Your task to perform on an android device: set the timer Image 0: 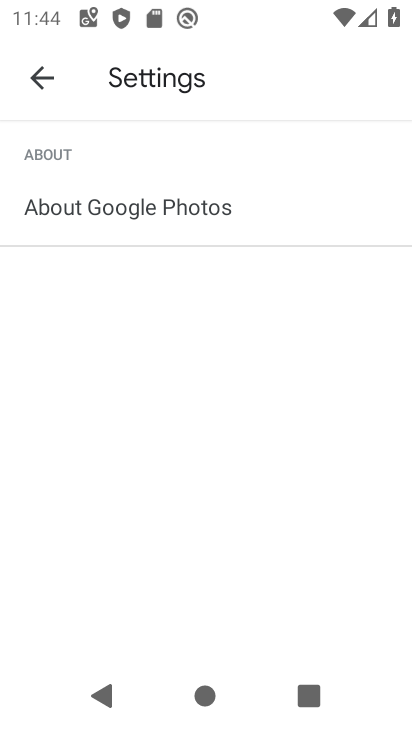
Step 0: press home button
Your task to perform on an android device: set the timer Image 1: 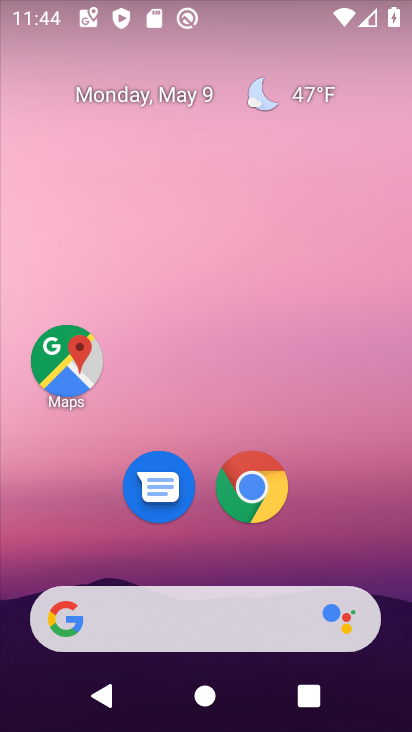
Step 1: drag from (208, 557) to (219, 85)
Your task to perform on an android device: set the timer Image 2: 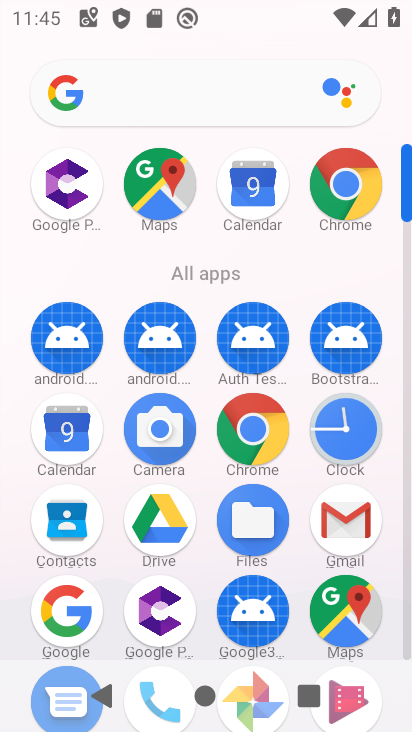
Step 2: click (344, 424)
Your task to perform on an android device: set the timer Image 3: 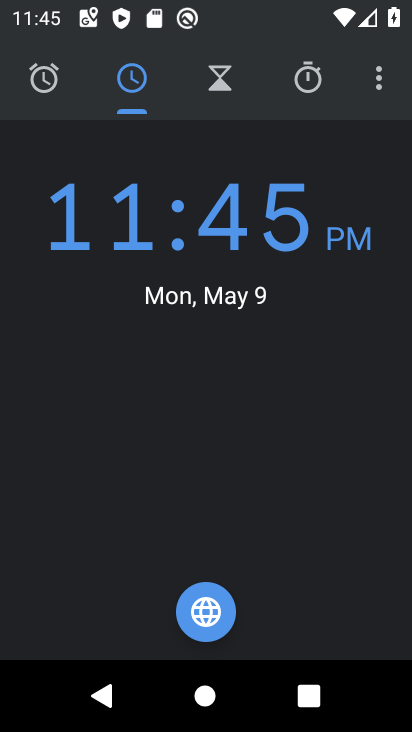
Step 3: click (216, 73)
Your task to perform on an android device: set the timer Image 4: 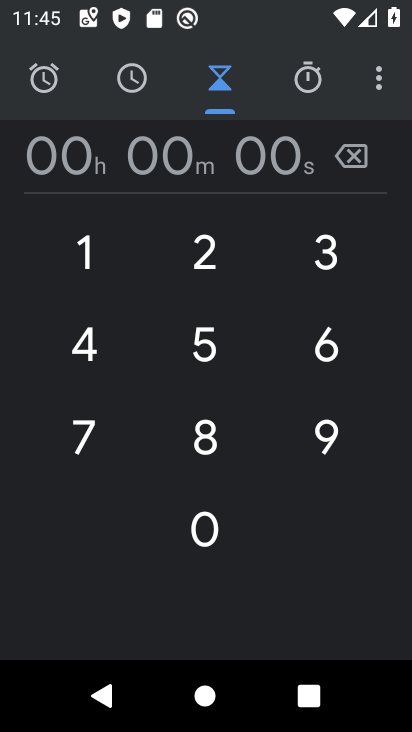
Step 4: click (202, 262)
Your task to perform on an android device: set the timer Image 5: 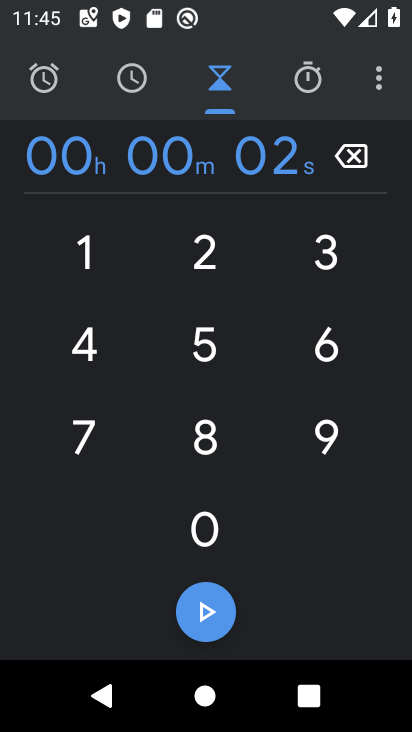
Step 5: click (199, 519)
Your task to perform on an android device: set the timer Image 6: 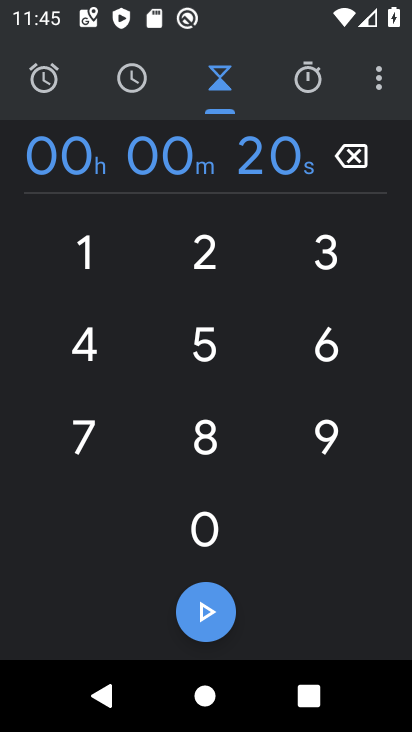
Step 6: click (199, 519)
Your task to perform on an android device: set the timer Image 7: 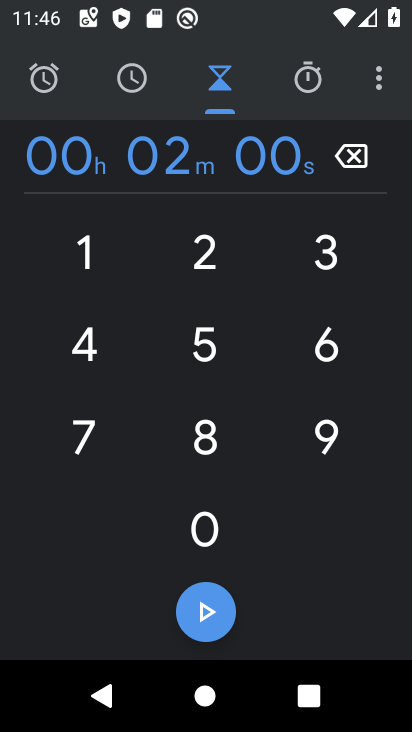
Step 7: click (196, 519)
Your task to perform on an android device: set the timer Image 8: 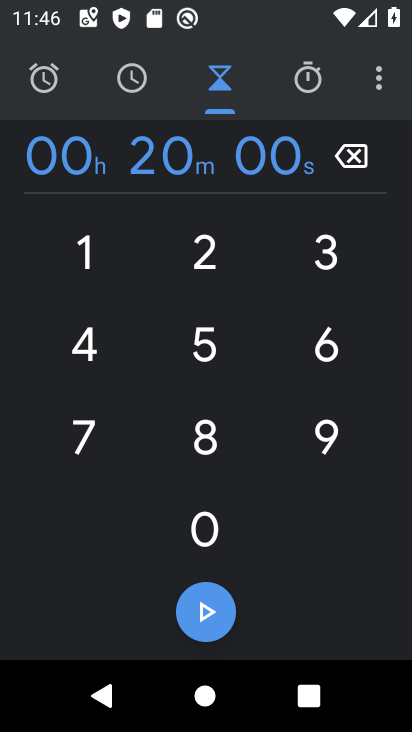
Step 8: click (210, 608)
Your task to perform on an android device: set the timer Image 9: 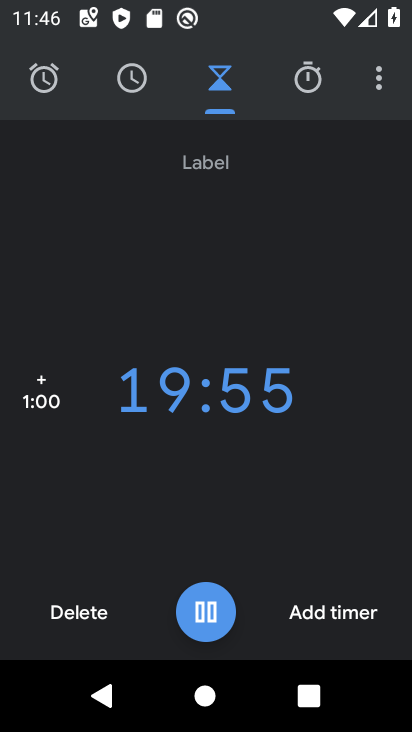
Step 9: task complete